Your task to perform on an android device: What is the recent news? Image 0: 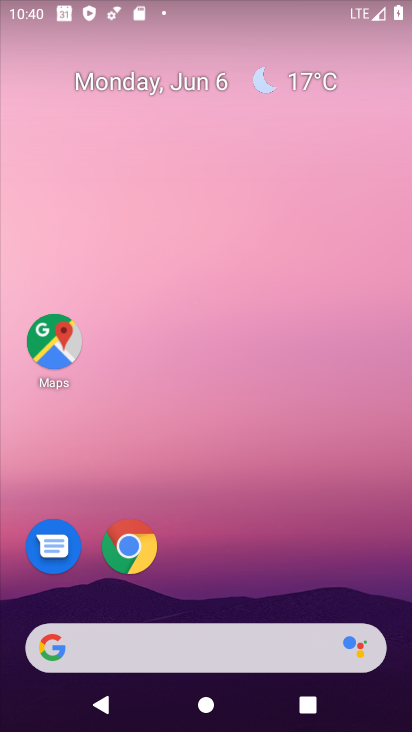
Step 0: click (142, 555)
Your task to perform on an android device: What is the recent news? Image 1: 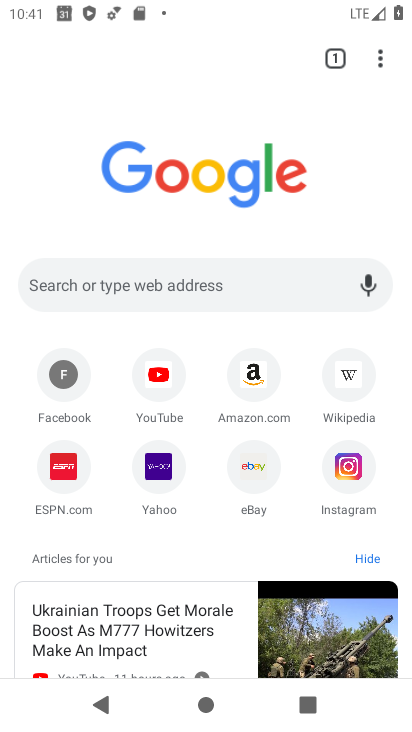
Step 1: click (219, 292)
Your task to perform on an android device: What is the recent news? Image 2: 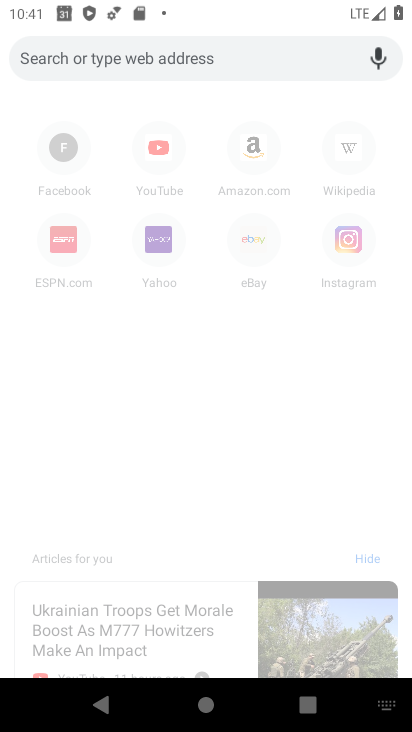
Step 2: type "news"
Your task to perform on an android device: What is the recent news? Image 3: 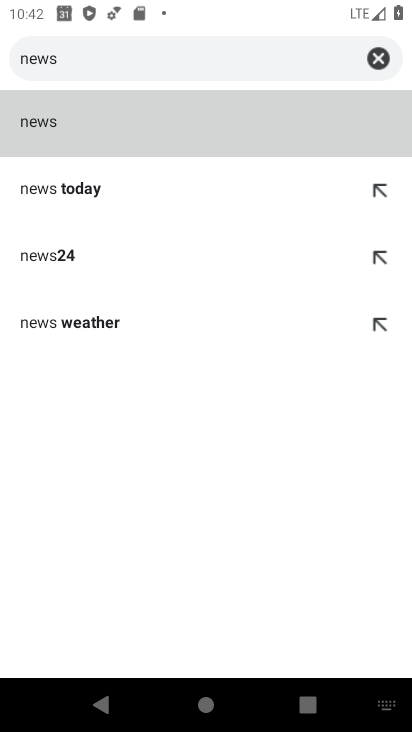
Step 3: click (11, 119)
Your task to perform on an android device: What is the recent news? Image 4: 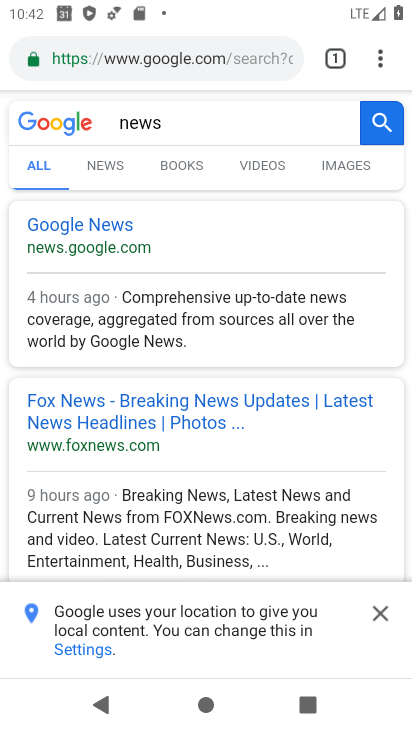
Step 4: click (107, 167)
Your task to perform on an android device: What is the recent news? Image 5: 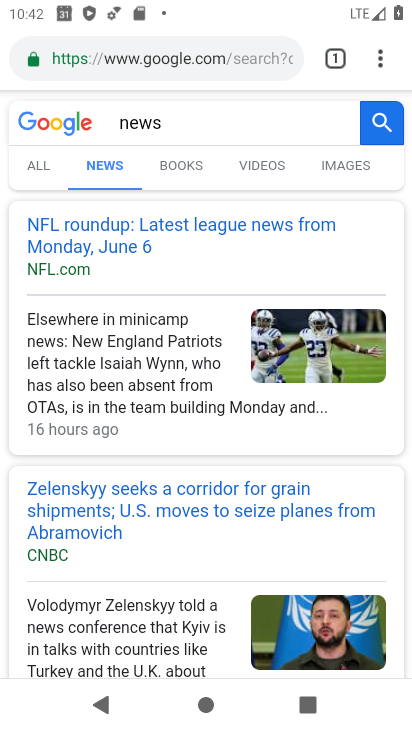
Step 5: task complete